Your task to perform on an android device: Open wifi settings Image 0: 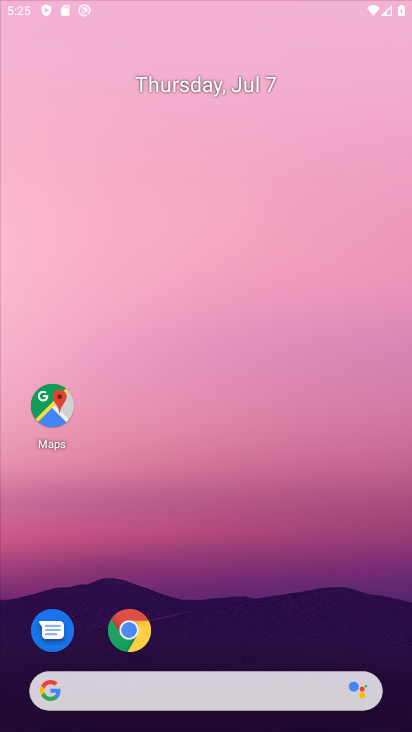
Step 0: press home button
Your task to perform on an android device: Open wifi settings Image 1: 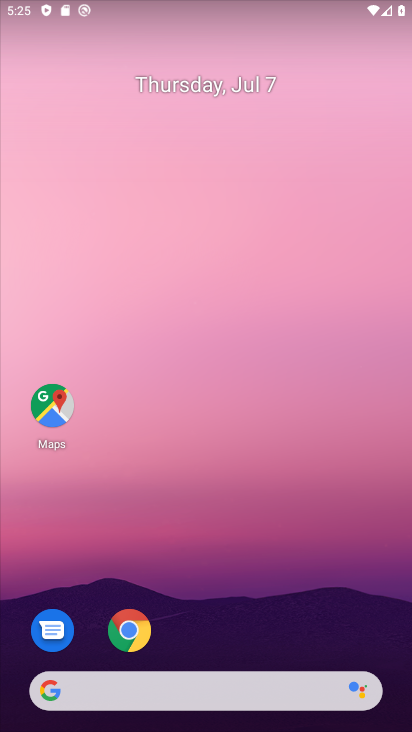
Step 1: drag from (269, 566) to (317, 62)
Your task to perform on an android device: Open wifi settings Image 2: 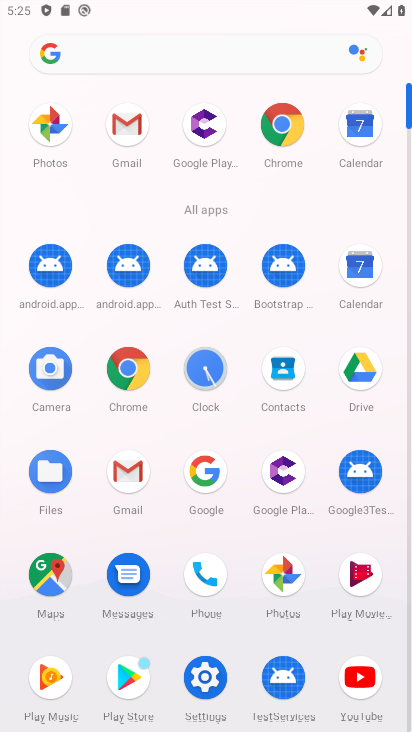
Step 2: click (207, 674)
Your task to perform on an android device: Open wifi settings Image 3: 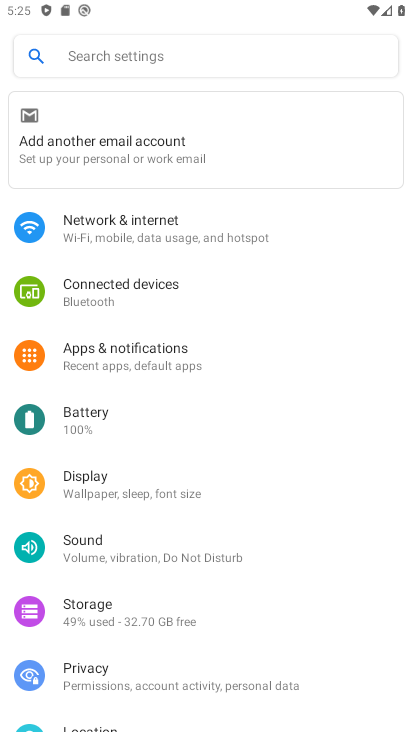
Step 3: click (159, 230)
Your task to perform on an android device: Open wifi settings Image 4: 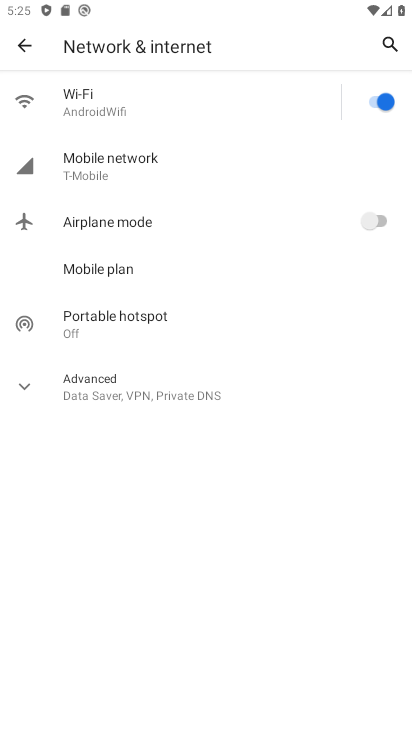
Step 4: click (96, 111)
Your task to perform on an android device: Open wifi settings Image 5: 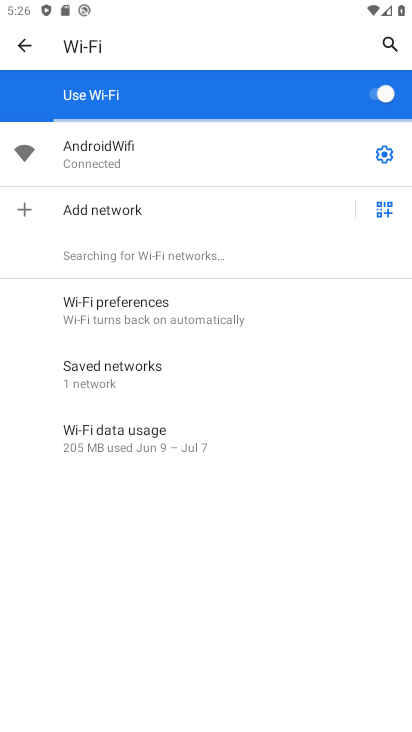
Step 5: task complete